Your task to perform on an android device: Go to Yahoo.com Image 0: 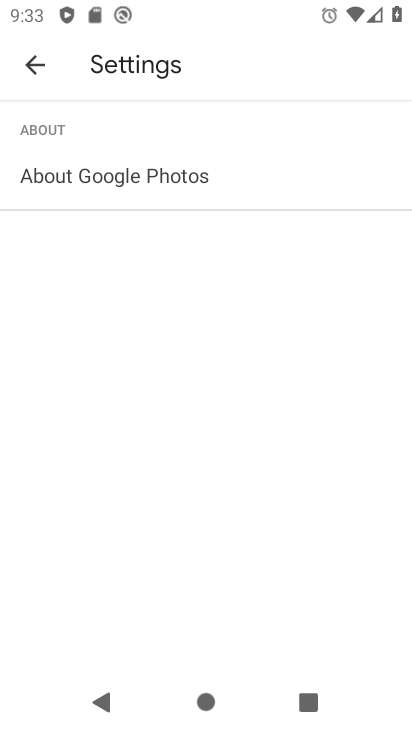
Step 0: press home button
Your task to perform on an android device: Go to Yahoo.com Image 1: 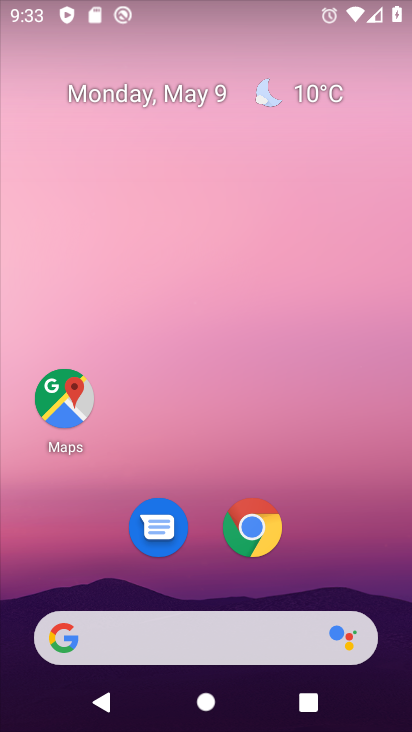
Step 1: click (250, 532)
Your task to perform on an android device: Go to Yahoo.com Image 2: 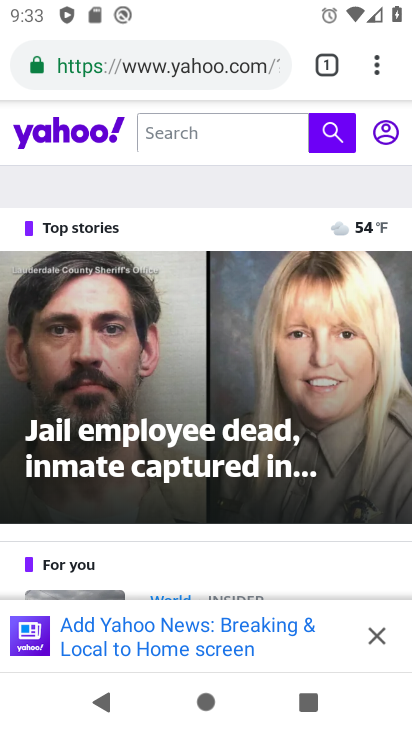
Step 2: task complete